Your task to perform on an android device: Is it going to rain this weekend? Image 0: 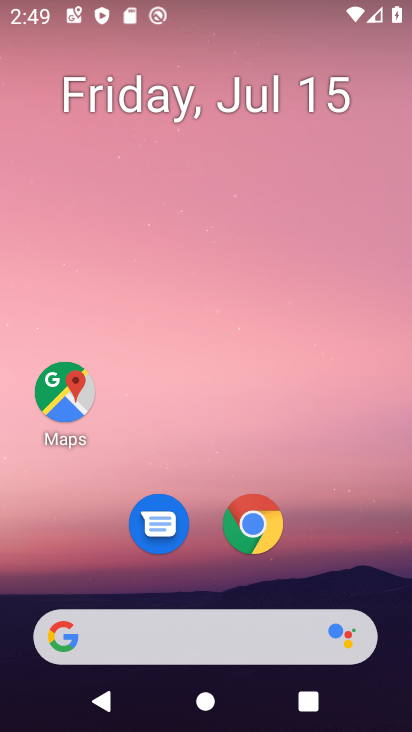
Step 0: press home button
Your task to perform on an android device: Is it going to rain this weekend? Image 1: 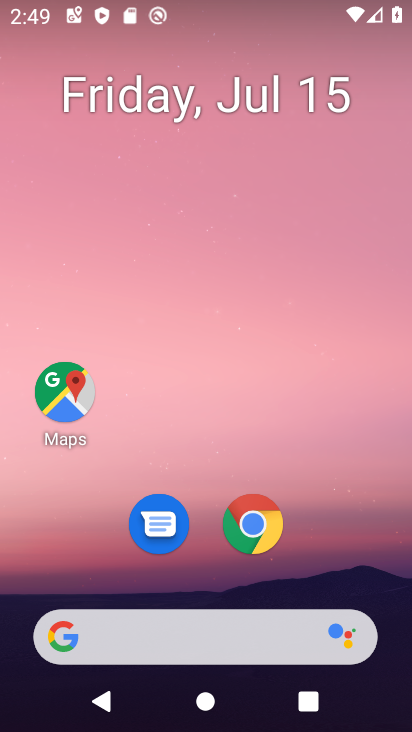
Step 1: drag from (208, 644) to (261, 150)
Your task to perform on an android device: Is it going to rain this weekend? Image 2: 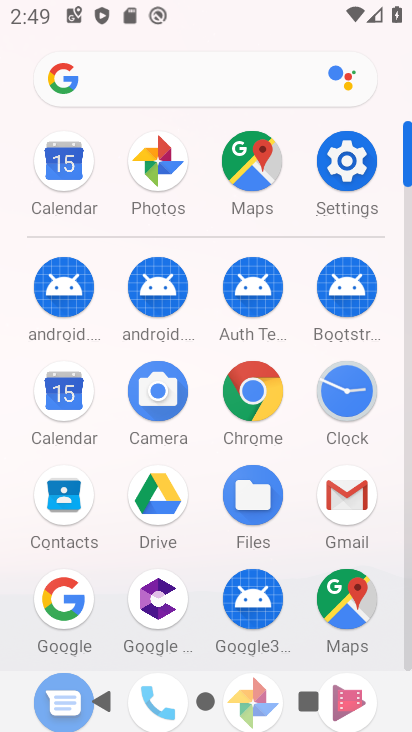
Step 2: click (70, 597)
Your task to perform on an android device: Is it going to rain this weekend? Image 3: 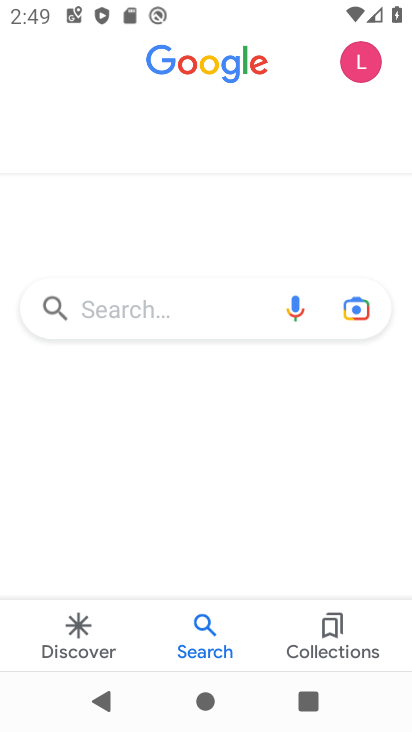
Step 3: click (205, 622)
Your task to perform on an android device: Is it going to rain this weekend? Image 4: 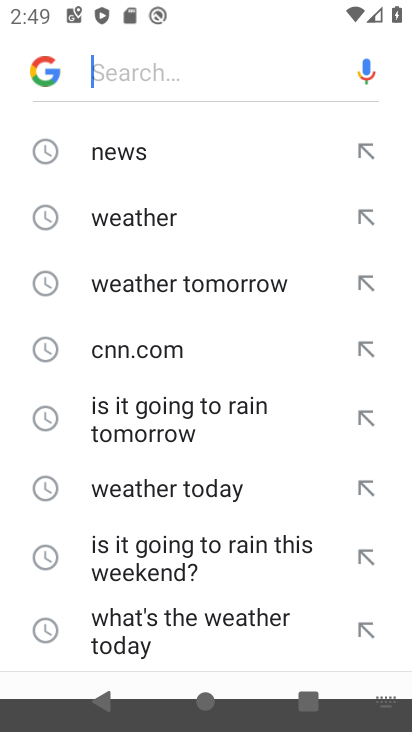
Step 4: click (148, 306)
Your task to perform on an android device: Is it going to rain this weekend? Image 5: 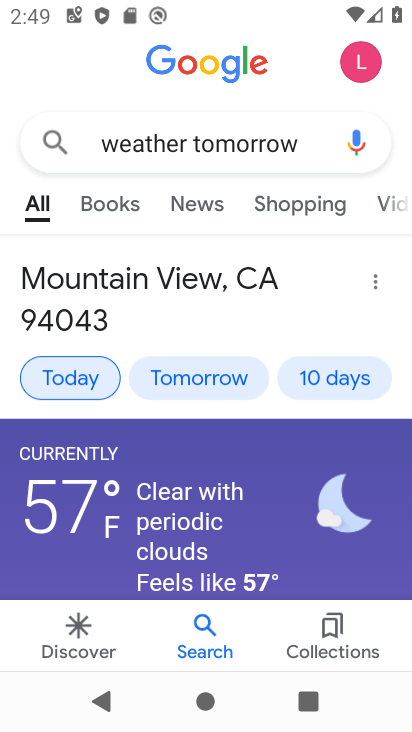
Step 5: click (318, 380)
Your task to perform on an android device: Is it going to rain this weekend? Image 6: 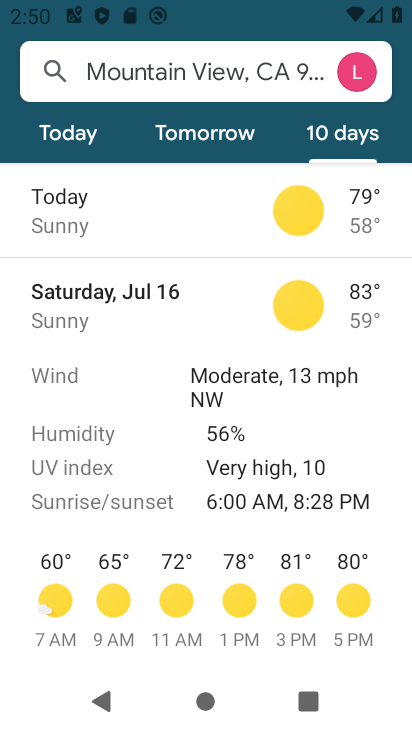
Step 6: task complete